Your task to perform on an android device: What's the weather? Image 0: 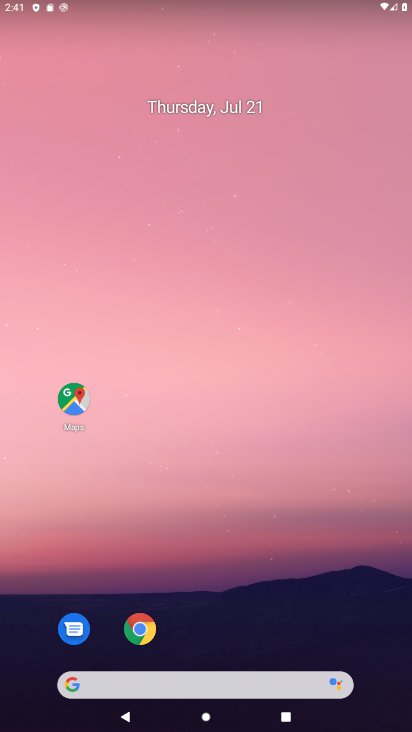
Step 0: click (144, 627)
Your task to perform on an android device: What's the weather? Image 1: 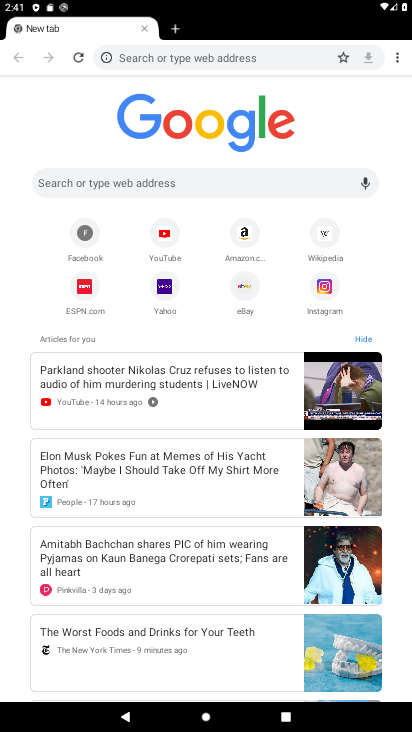
Step 1: click (322, 234)
Your task to perform on an android device: What's the weather? Image 2: 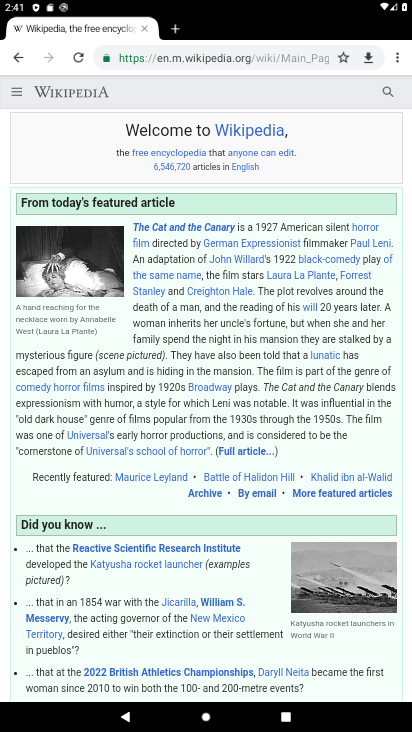
Step 2: task complete